Your task to perform on an android device: create a new album in the google photos Image 0: 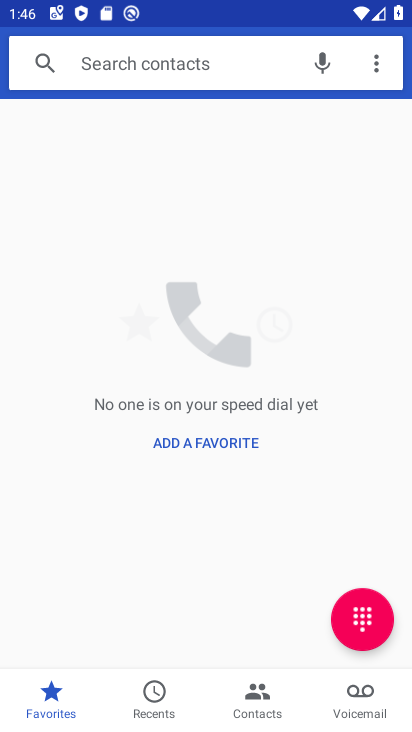
Step 0: press home button
Your task to perform on an android device: create a new album in the google photos Image 1: 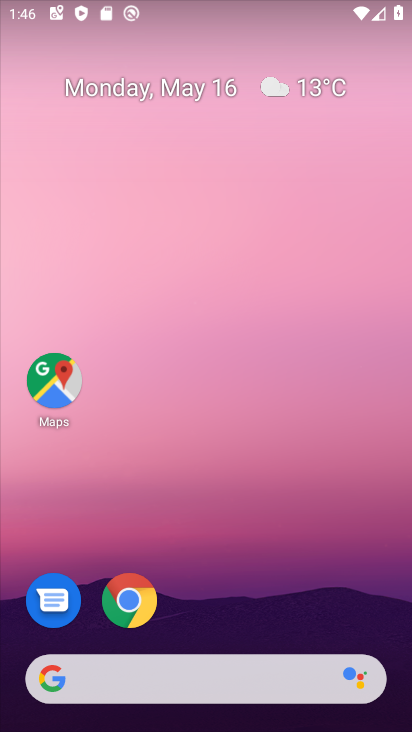
Step 1: drag from (253, 614) to (198, 9)
Your task to perform on an android device: create a new album in the google photos Image 2: 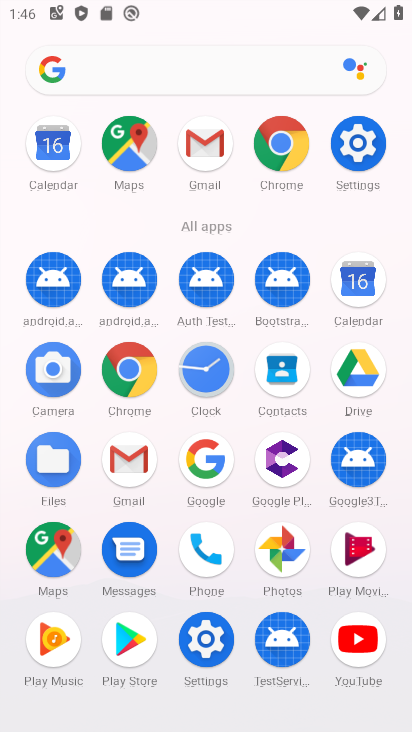
Step 2: click (275, 558)
Your task to perform on an android device: create a new album in the google photos Image 3: 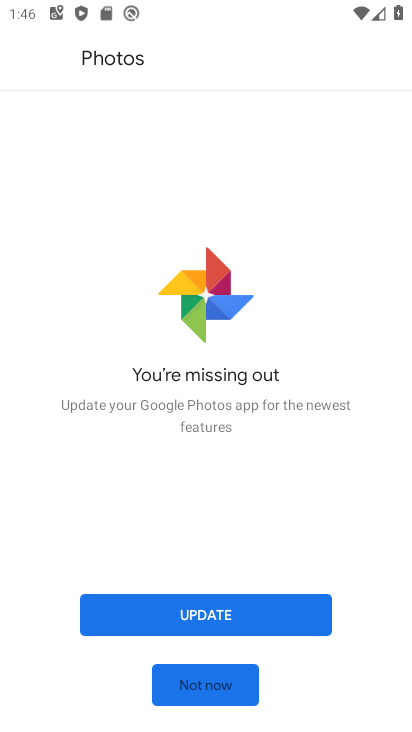
Step 3: click (234, 694)
Your task to perform on an android device: create a new album in the google photos Image 4: 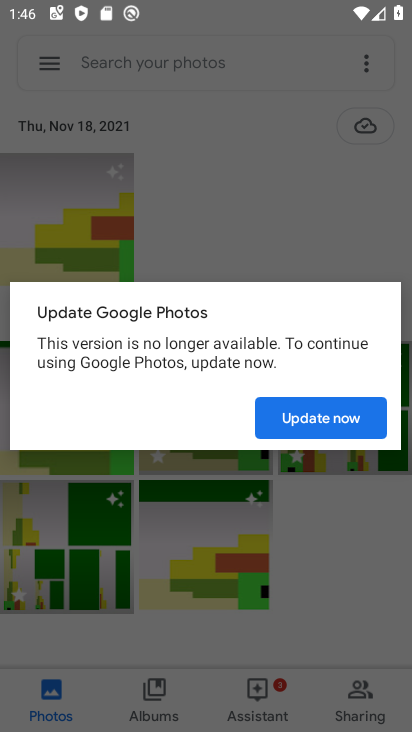
Step 4: click (306, 519)
Your task to perform on an android device: create a new album in the google photos Image 5: 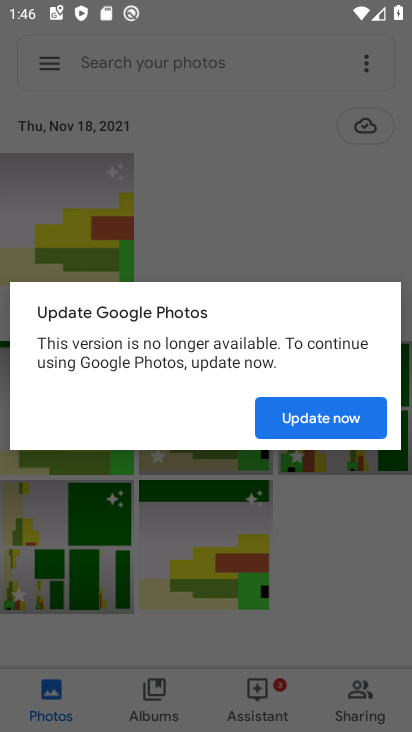
Step 5: click (292, 263)
Your task to perform on an android device: create a new album in the google photos Image 6: 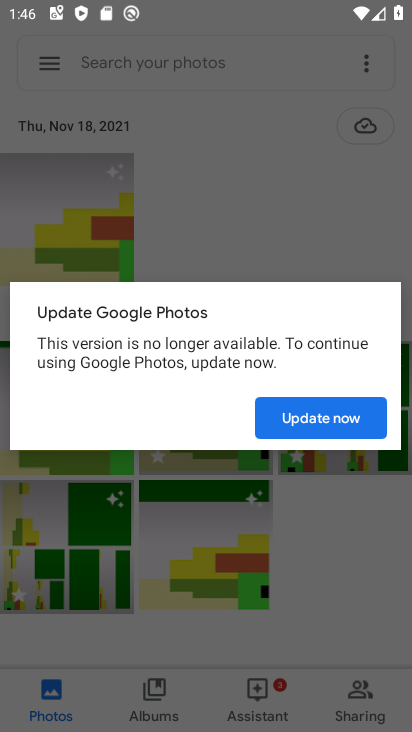
Step 6: click (303, 416)
Your task to perform on an android device: create a new album in the google photos Image 7: 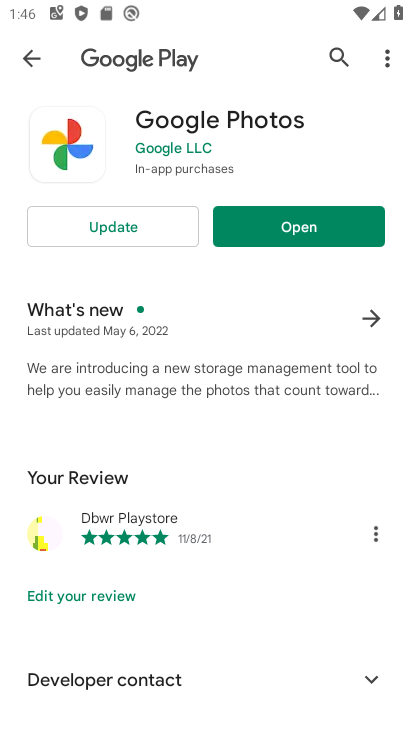
Step 7: click (305, 234)
Your task to perform on an android device: create a new album in the google photos Image 8: 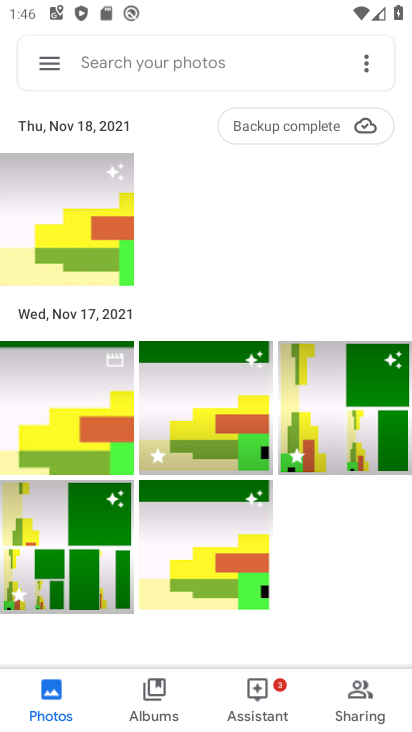
Step 8: drag from (136, 283) to (200, 397)
Your task to perform on an android device: create a new album in the google photos Image 9: 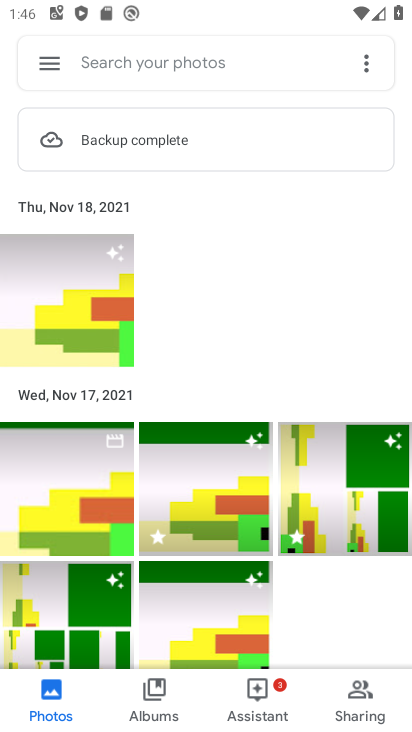
Step 9: click (201, 496)
Your task to perform on an android device: create a new album in the google photos Image 10: 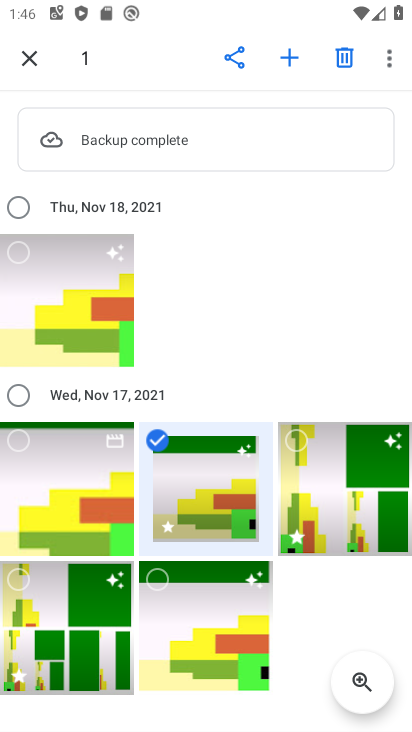
Step 10: click (334, 451)
Your task to perform on an android device: create a new album in the google photos Image 11: 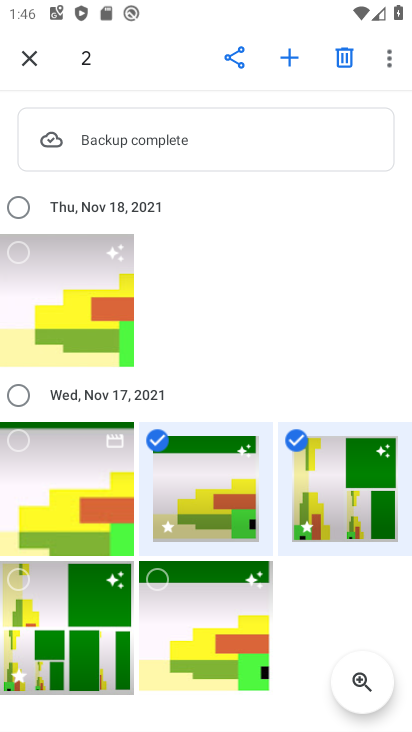
Step 11: click (281, 67)
Your task to perform on an android device: create a new album in the google photos Image 12: 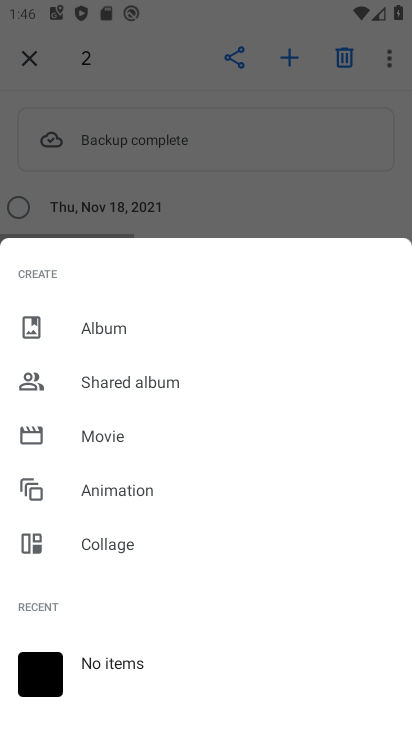
Step 12: click (136, 327)
Your task to perform on an android device: create a new album in the google photos Image 13: 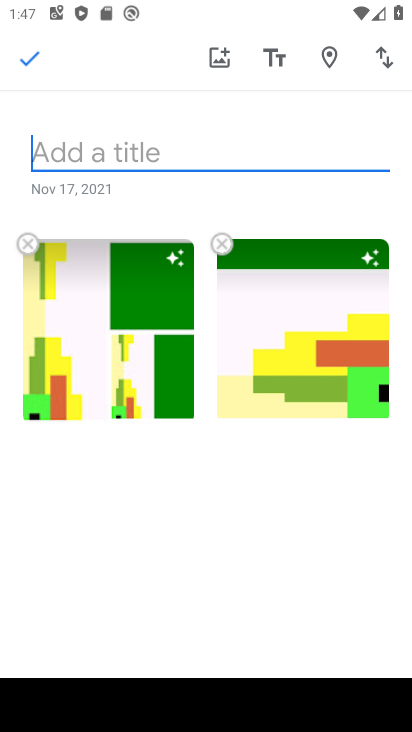
Step 13: type "err"
Your task to perform on an android device: create a new album in the google photos Image 14: 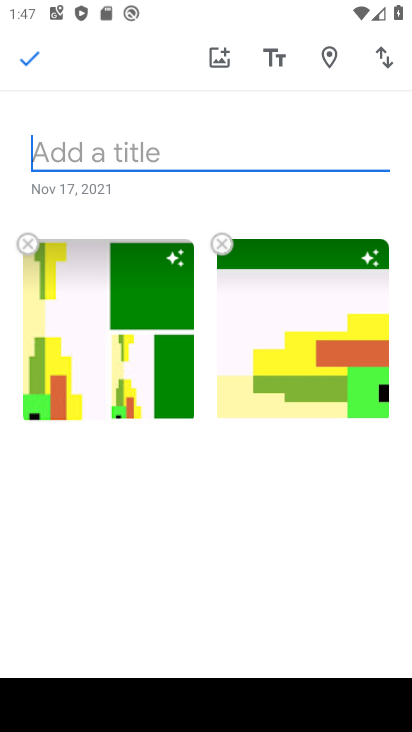
Step 14: click (32, 57)
Your task to perform on an android device: create a new album in the google photos Image 15: 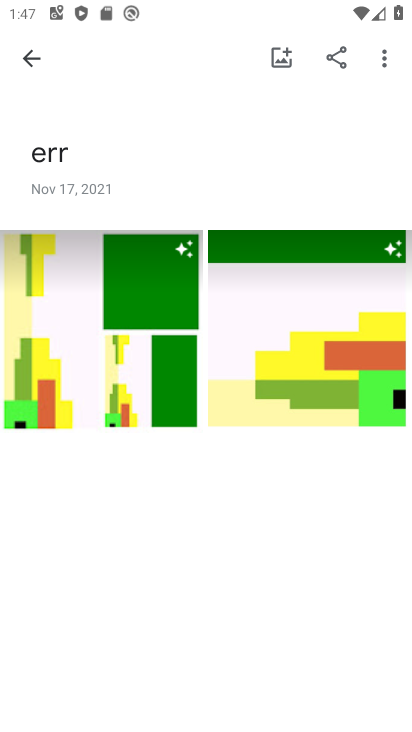
Step 15: task complete